Your task to perform on an android device: add a contact Image 0: 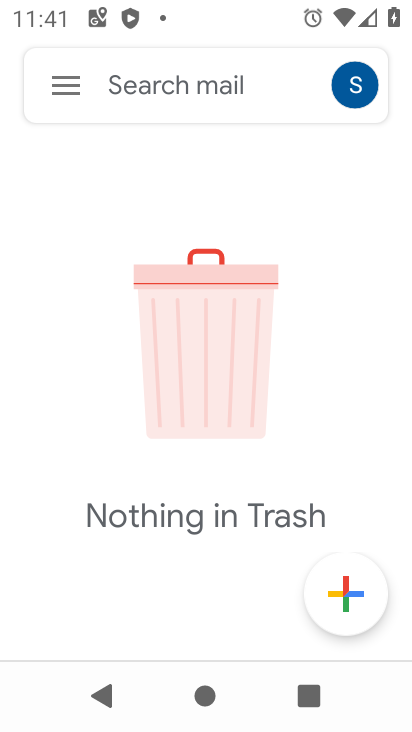
Step 0: press home button
Your task to perform on an android device: add a contact Image 1: 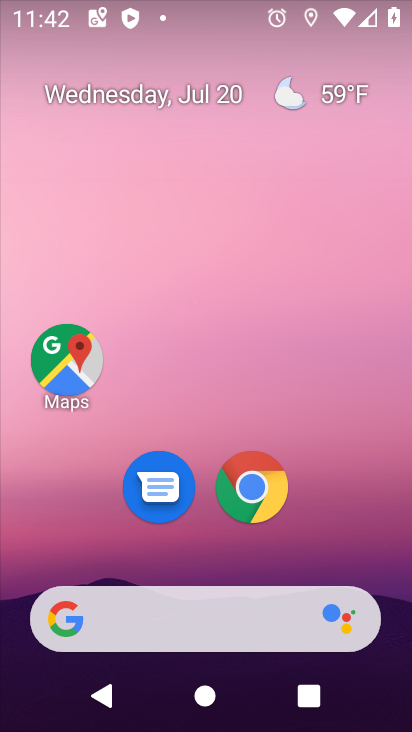
Step 1: drag from (369, 529) to (380, 116)
Your task to perform on an android device: add a contact Image 2: 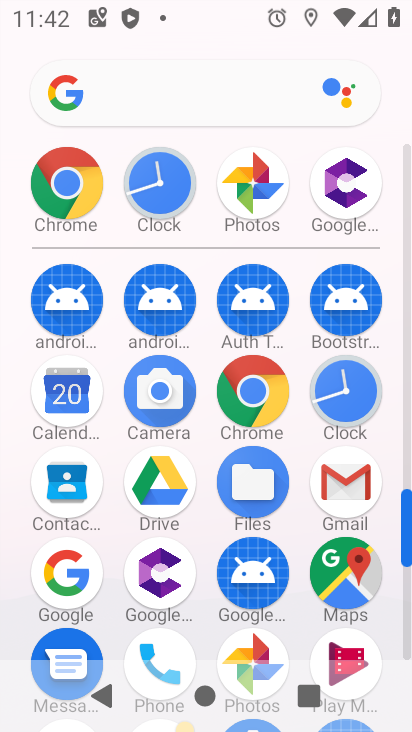
Step 2: click (74, 498)
Your task to perform on an android device: add a contact Image 3: 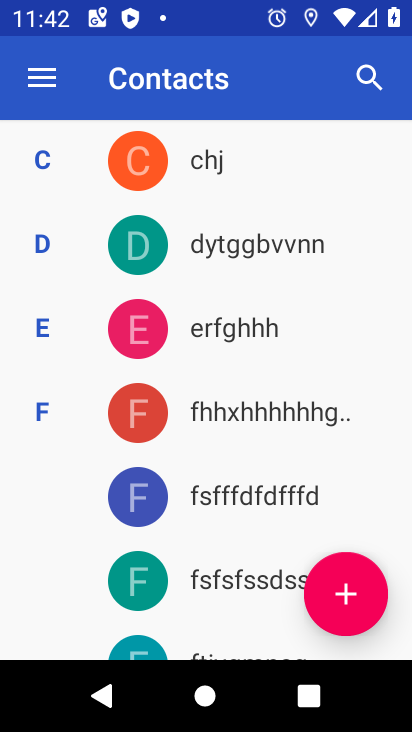
Step 3: click (354, 590)
Your task to perform on an android device: add a contact Image 4: 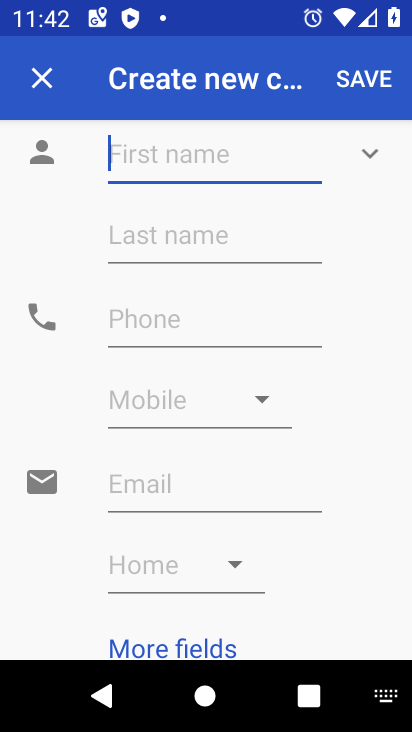
Step 4: type "me"
Your task to perform on an android device: add a contact Image 5: 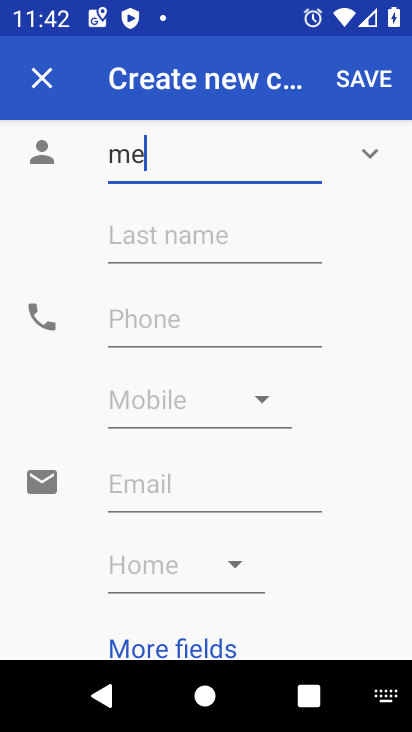
Step 5: click (299, 322)
Your task to perform on an android device: add a contact Image 6: 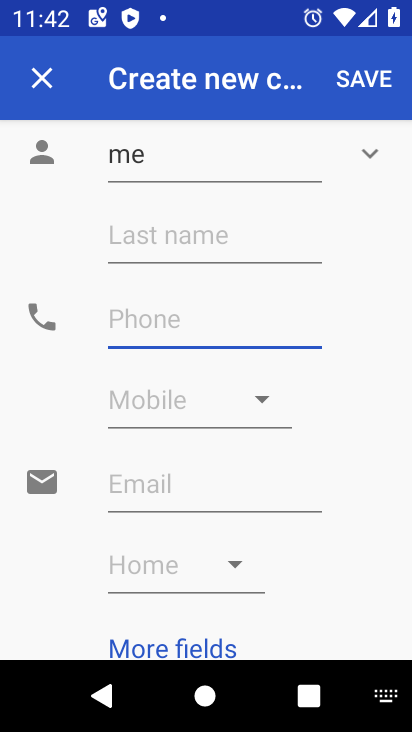
Step 6: type "123456789"
Your task to perform on an android device: add a contact Image 7: 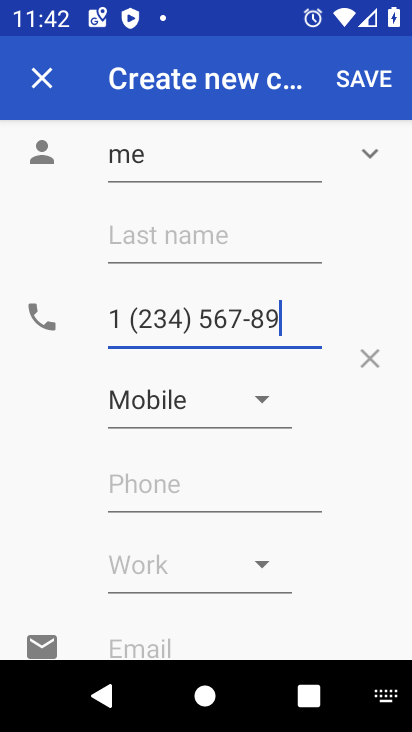
Step 7: click (374, 87)
Your task to perform on an android device: add a contact Image 8: 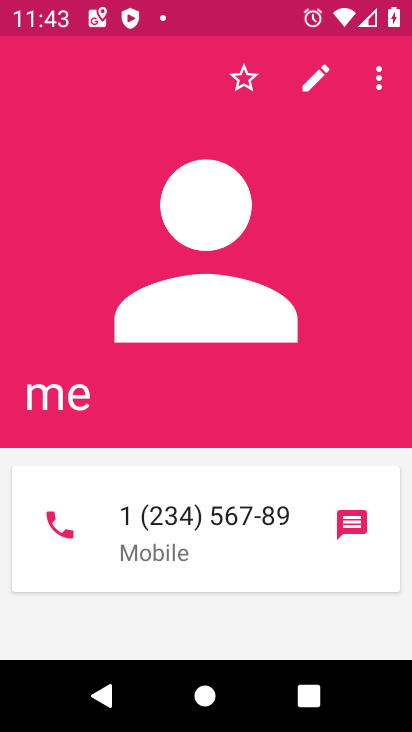
Step 8: task complete